Your task to perform on an android device: toggle location history Image 0: 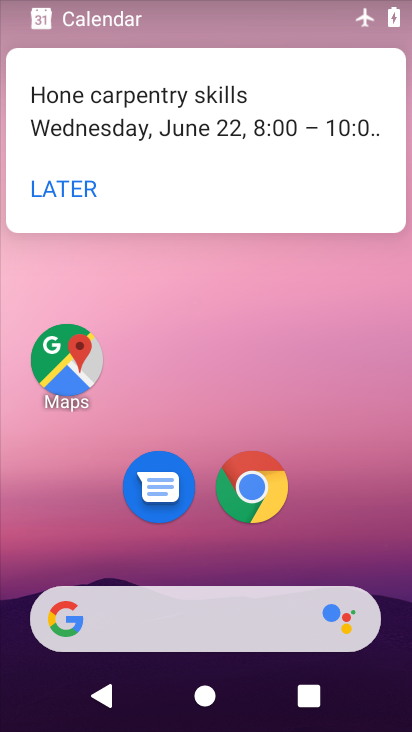
Step 0: click (59, 377)
Your task to perform on an android device: toggle location history Image 1: 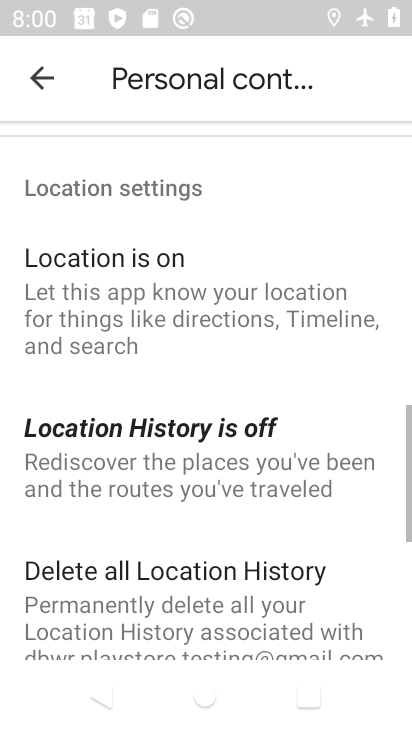
Step 1: click (128, 456)
Your task to perform on an android device: toggle location history Image 2: 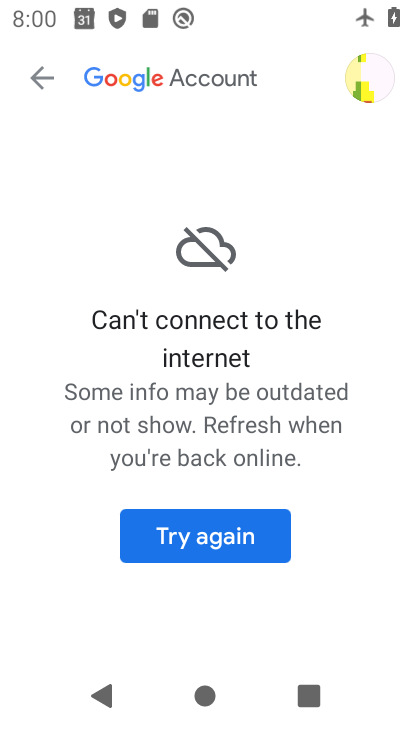
Step 2: task complete